Your task to perform on an android device: Go to Google maps Image 0: 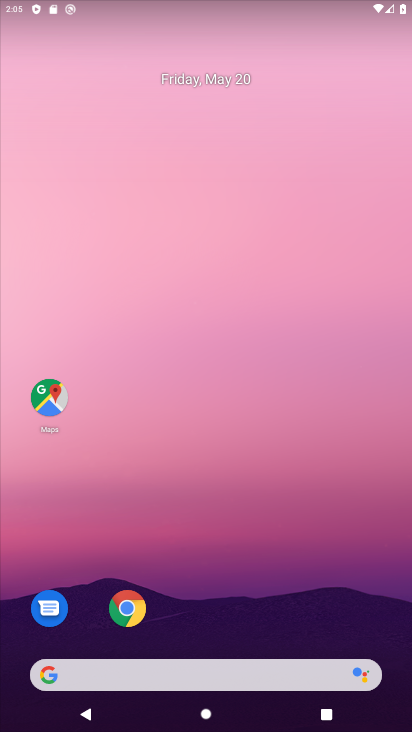
Step 0: click (64, 402)
Your task to perform on an android device: Go to Google maps Image 1: 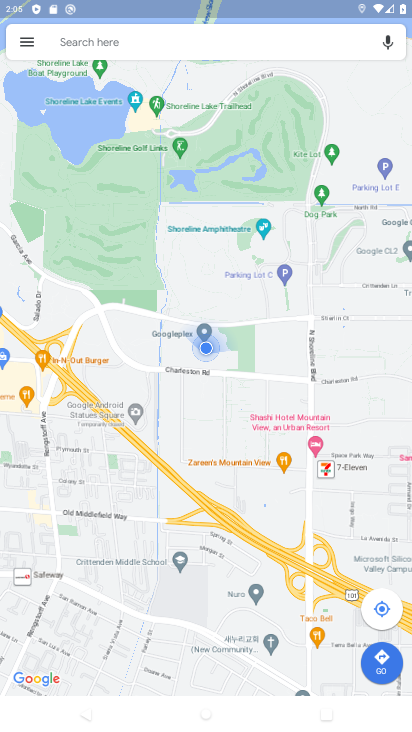
Step 1: task complete